Your task to perform on an android device: Open Youtube and go to the subscriptions tab Image 0: 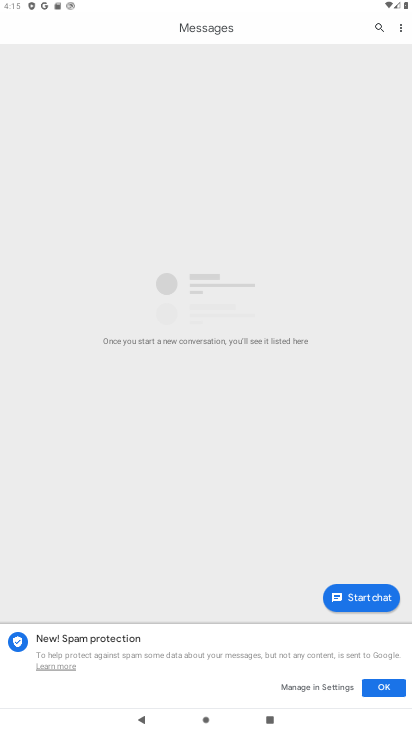
Step 0: press home button
Your task to perform on an android device: Open Youtube and go to the subscriptions tab Image 1: 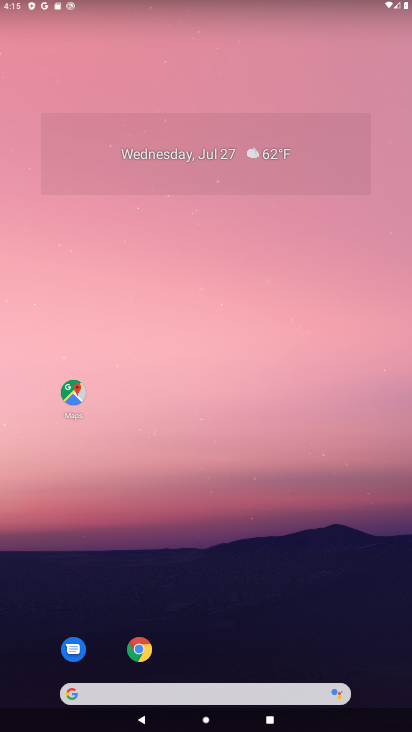
Step 1: drag from (263, 595) to (277, 202)
Your task to perform on an android device: Open Youtube and go to the subscriptions tab Image 2: 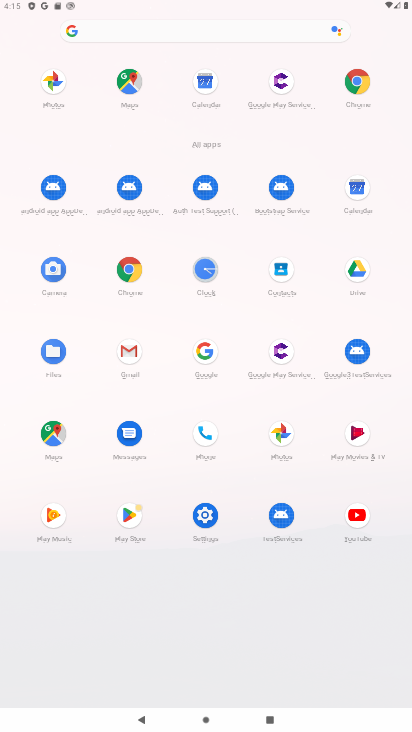
Step 2: click (354, 514)
Your task to perform on an android device: Open Youtube and go to the subscriptions tab Image 3: 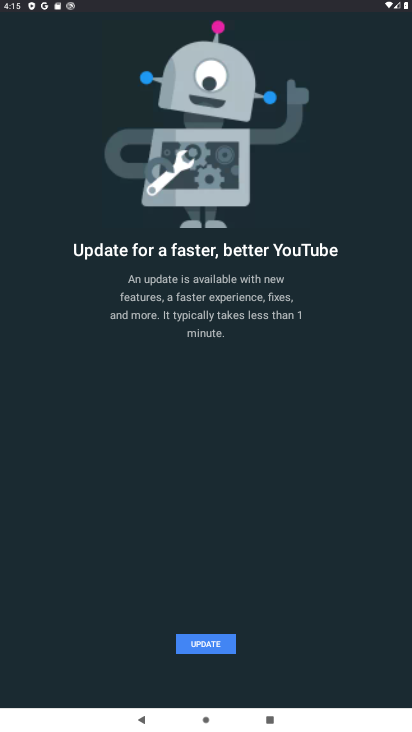
Step 3: task complete